Your task to perform on an android device: turn off location Image 0: 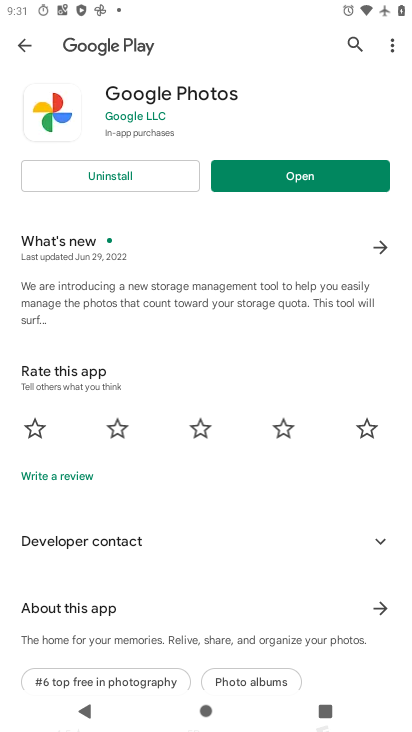
Step 0: press home button
Your task to perform on an android device: turn off location Image 1: 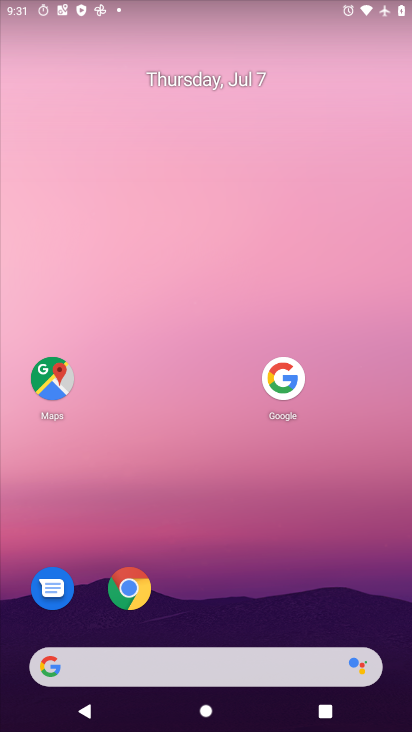
Step 1: drag from (196, 663) to (287, 49)
Your task to perform on an android device: turn off location Image 2: 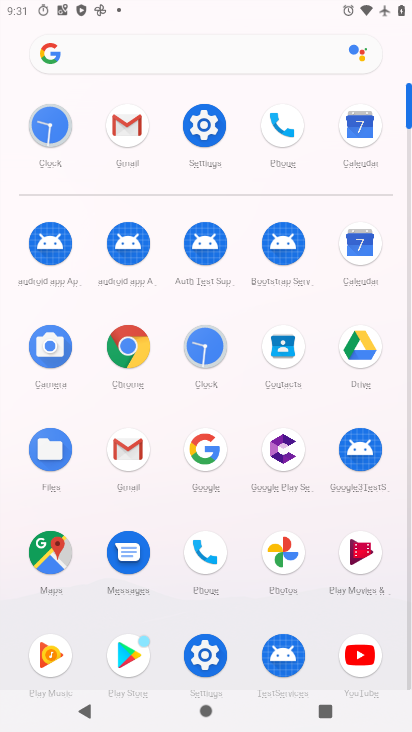
Step 2: click (208, 133)
Your task to perform on an android device: turn off location Image 3: 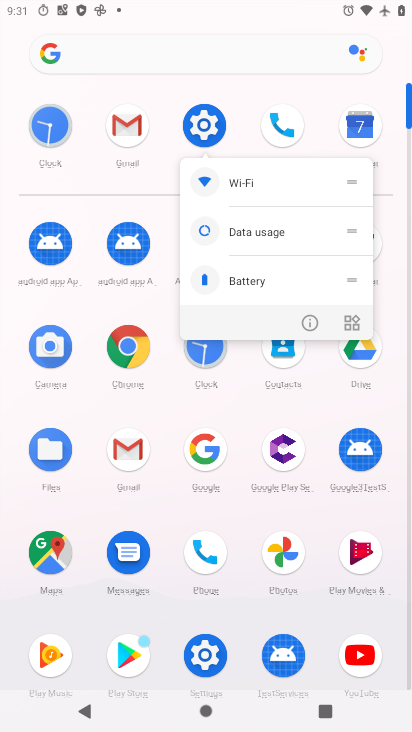
Step 3: click (205, 125)
Your task to perform on an android device: turn off location Image 4: 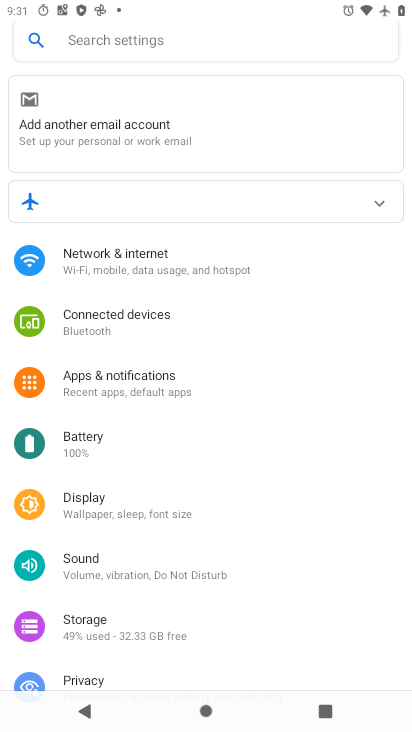
Step 4: drag from (140, 601) to (245, 282)
Your task to perform on an android device: turn off location Image 5: 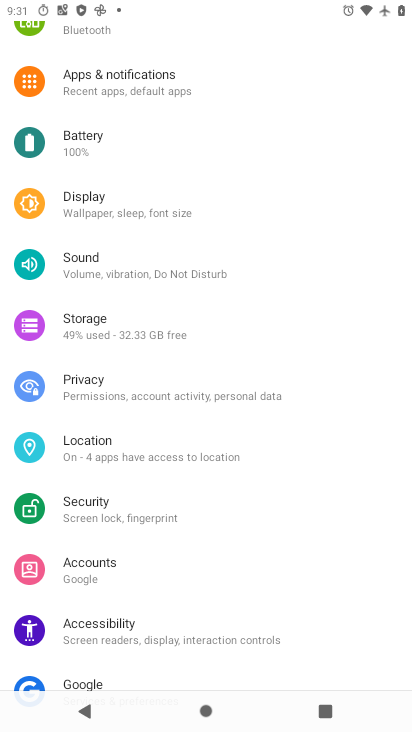
Step 5: click (126, 453)
Your task to perform on an android device: turn off location Image 6: 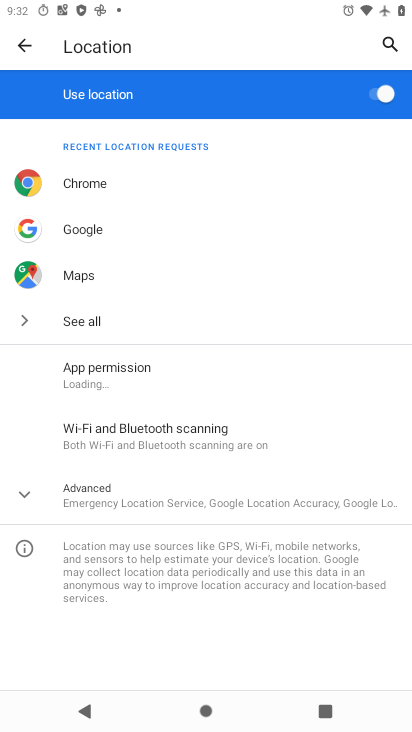
Step 6: click (377, 93)
Your task to perform on an android device: turn off location Image 7: 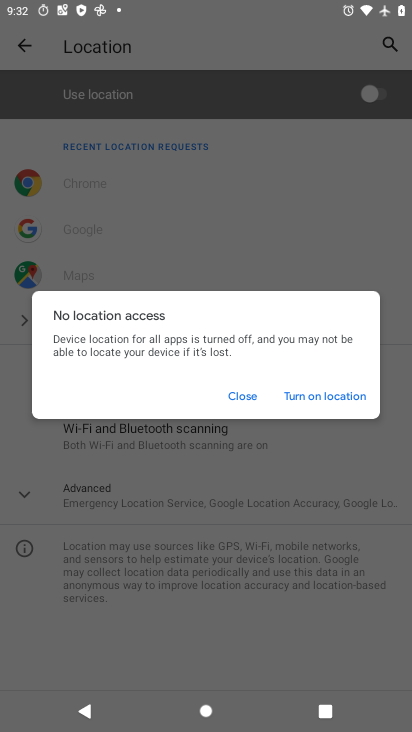
Step 7: task complete